Your task to perform on an android device: open the mobile data screen to see how much data has been used Image 0: 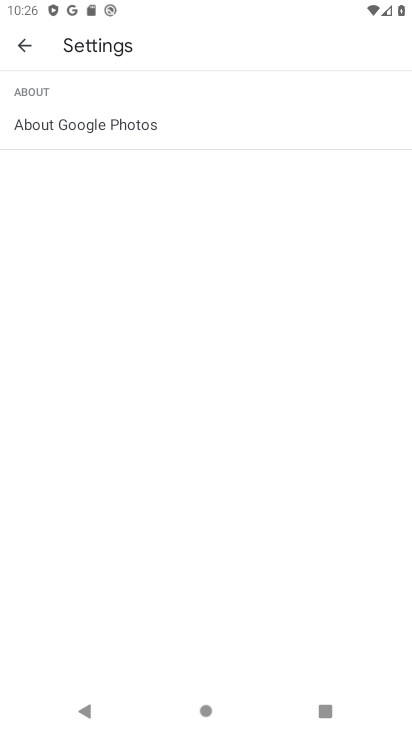
Step 0: click (17, 49)
Your task to perform on an android device: open the mobile data screen to see how much data has been used Image 1: 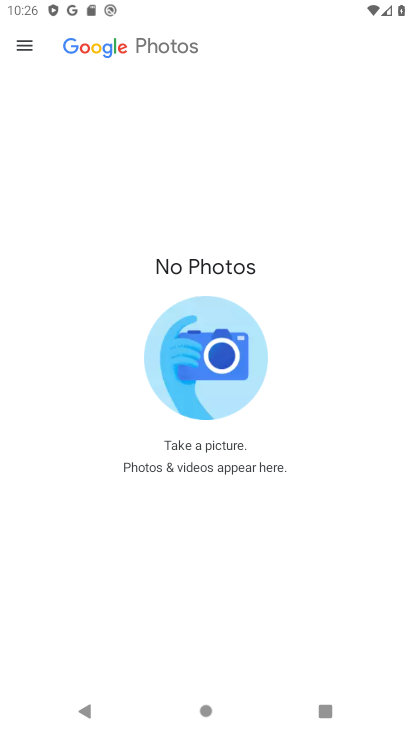
Step 1: press back button
Your task to perform on an android device: open the mobile data screen to see how much data has been used Image 2: 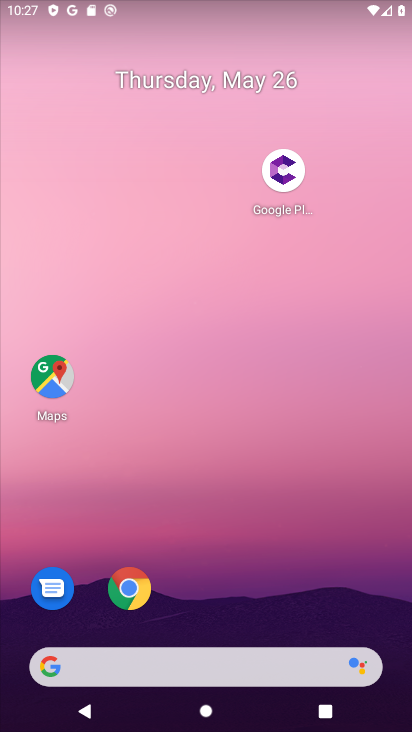
Step 2: drag from (257, 626) to (154, 211)
Your task to perform on an android device: open the mobile data screen to see how much data has been used Image 3: 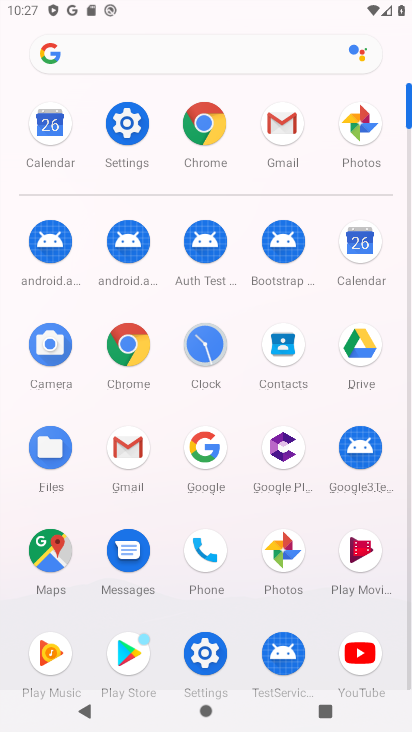
Step 3: click (125, 133)
Your task to perform on an android device: open the mobile data screen to see how much data has been used Image 4: 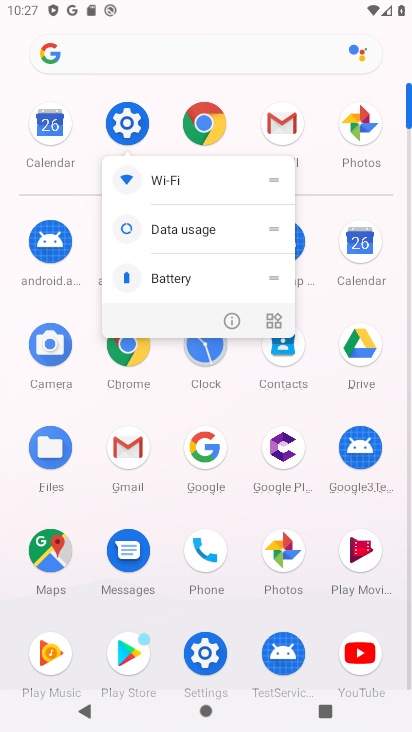
Step 4: click (133, 149)
Your task to perform on an android device: open the mobile data screen to see how much data has been used Image 5: 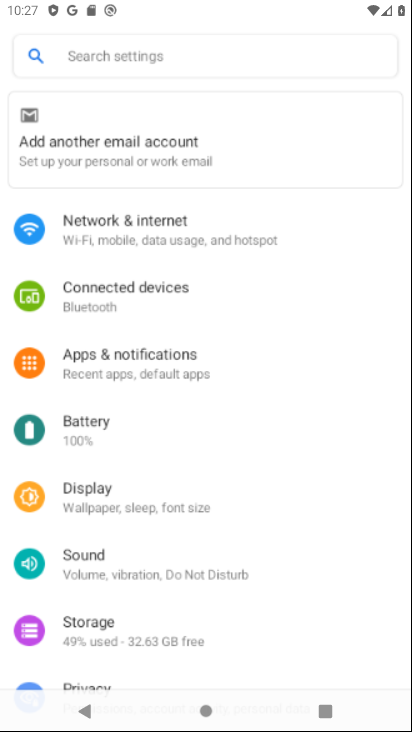
Step 5: click (133, 149)
Your task to perform on an android device: open the mobile data screen to see how much data has been used Image 6: 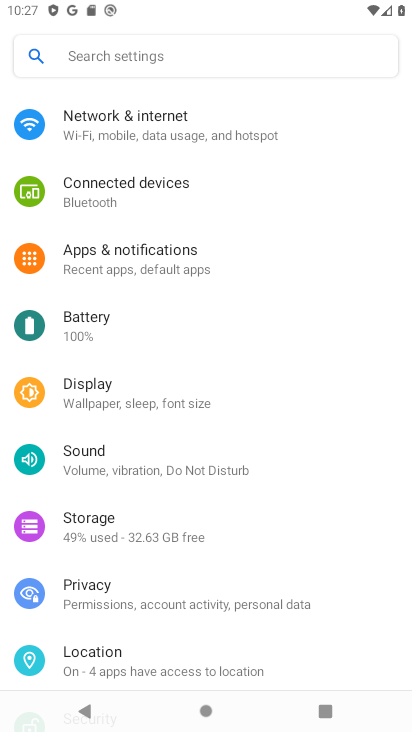
Step 6: click (132, 150)
Your task to perform on an android device: open the mobile data screen to see how much data has been used Image 7: 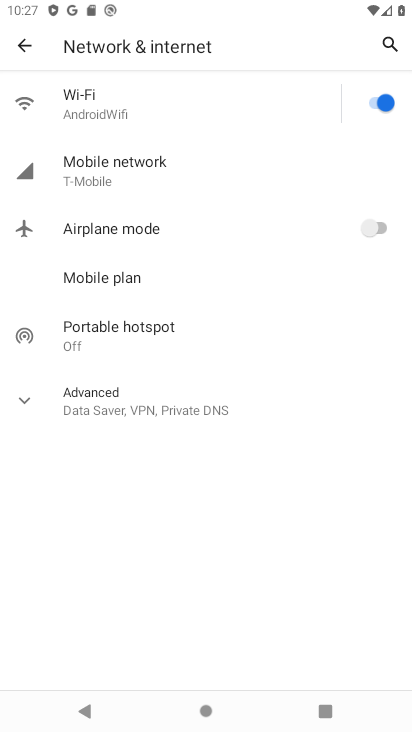
Step 7: click (74, 177)
Your task to perform on an android device: open the mobile data screen to see how much data has been used Image 8: 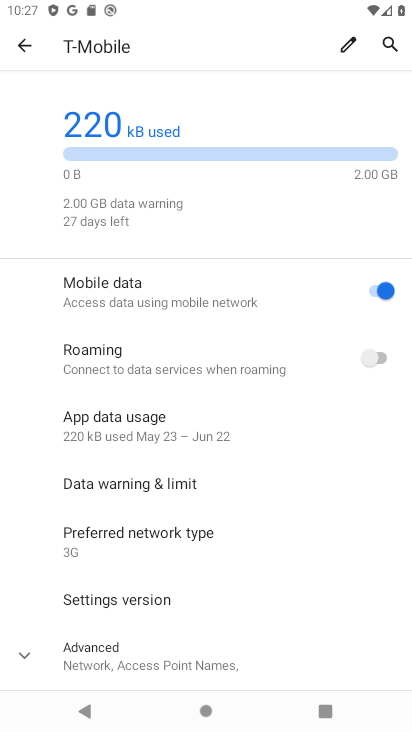
Step 8: click (30, 38)
Your task to perform on an android device: open the mobile data screen to see how much data has been used Image 9: 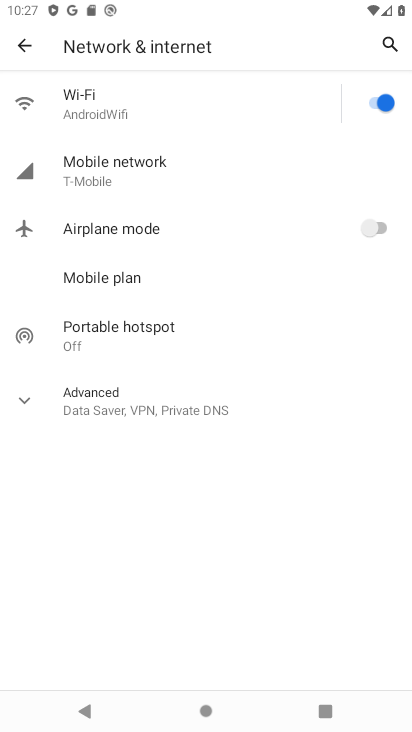
Step 9: task complete